Your task to perform on an android device: Open calendar and show me the second week of next month Image 0: 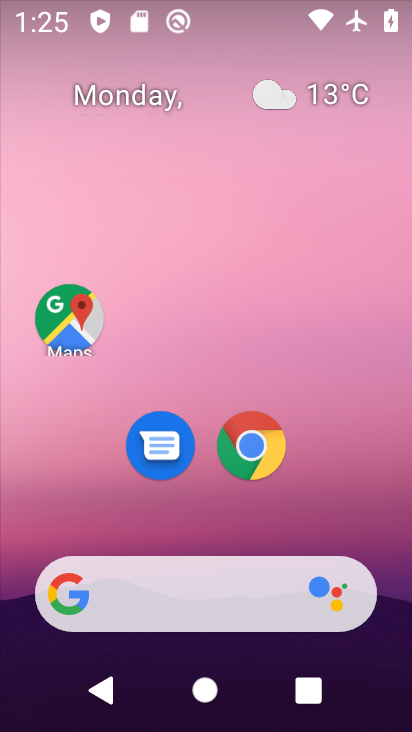
Step 0: drag from (399, 606) to (307, 198)
Your task to perform on an android device: Open calendar and show me the second week of next month Image 1: 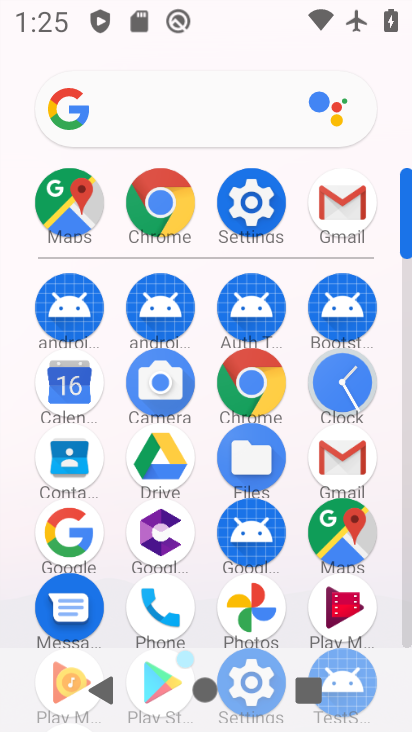
Step 1: click (70, 393)
Your task to perform on an android device: Open calendar and show me the second week of next month Image 2: 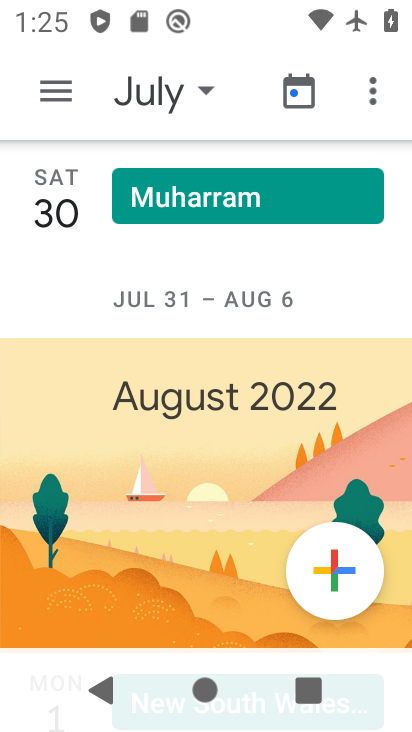
Step 2: click (155, 95)
Your task to perform on an android device: Open calendar and show me the second week of next month Image 3: 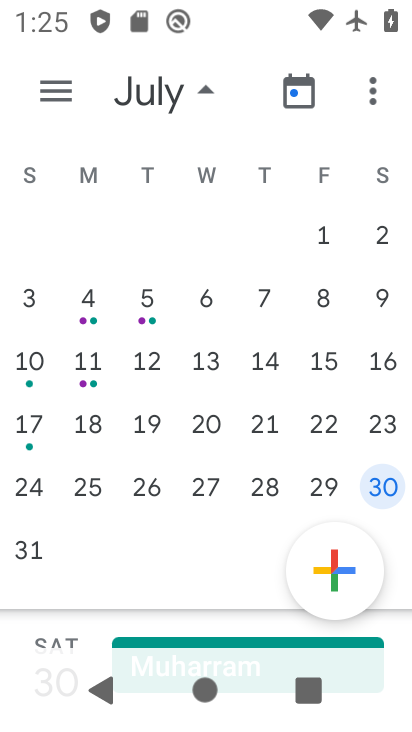
Step 3: drag from (378, 337) to (4, 392)
Your task to perform on an android device: Open calendar and show me the second week of next month Image 4: 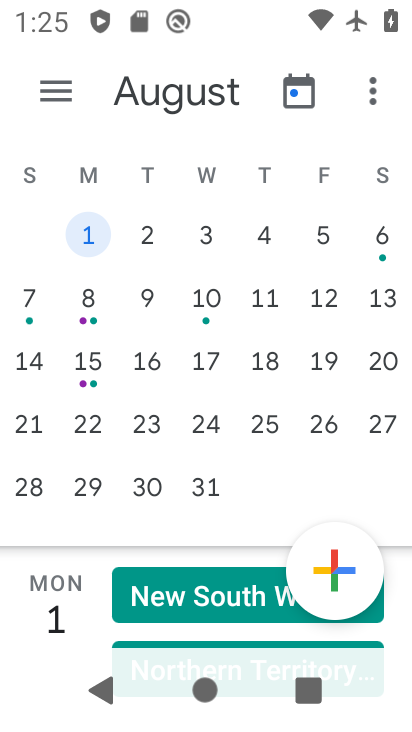
Step 4: click (91, 352)
Your task to perform on an android device: Open calendar and show me the second week of next month Image 5: 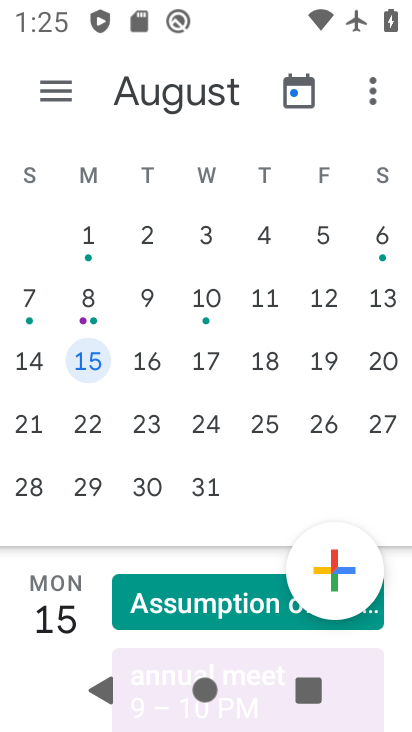
Step 5: task complete